Your task to perform on an android device: When is my next appointment? Image 0: 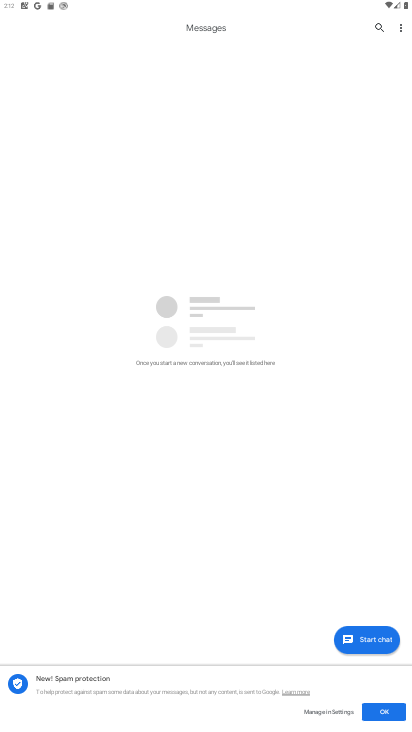
Step 0: press home button
Your task to perform on an android device: When is my next appointment? Image 1: 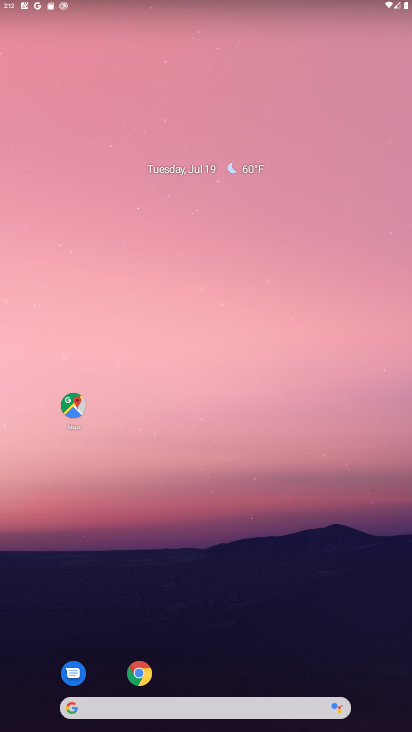
Step 1: drag from (217, 726) to (297, 168)
Your task to perform on an android device: When is my next appointment? Image 2: 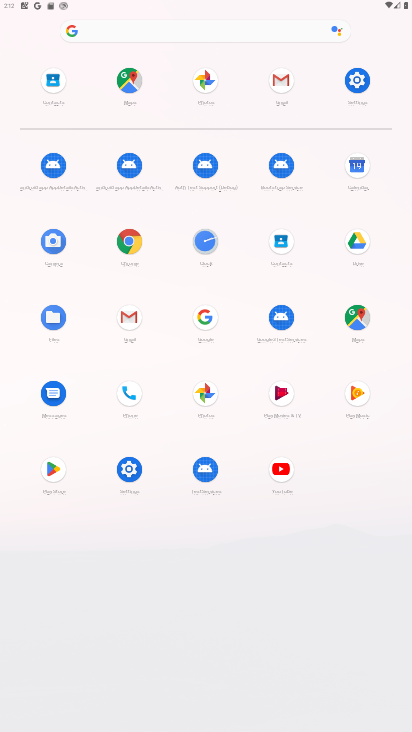
Step 2: click (361, 159)
Your task to perform on an android device: When is my next appointment? Image 3: 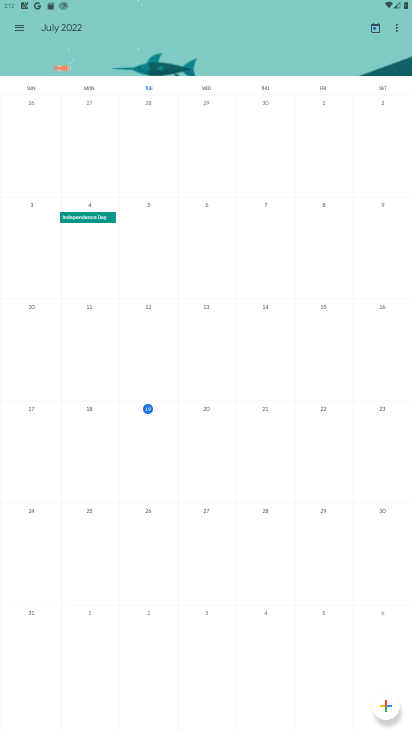
Step 3: click (20, 22)
Your task to perform on an android device: When is my next appointment? Image 4: 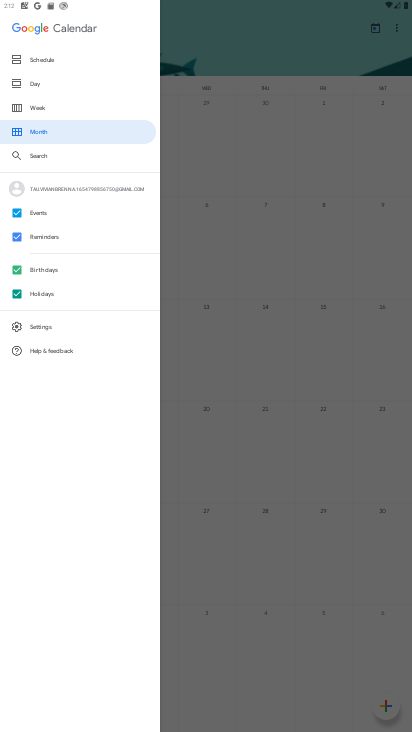
Step 4: click (45, 55)
Your task to perform on an android device: When is my next appointment? Image 5: 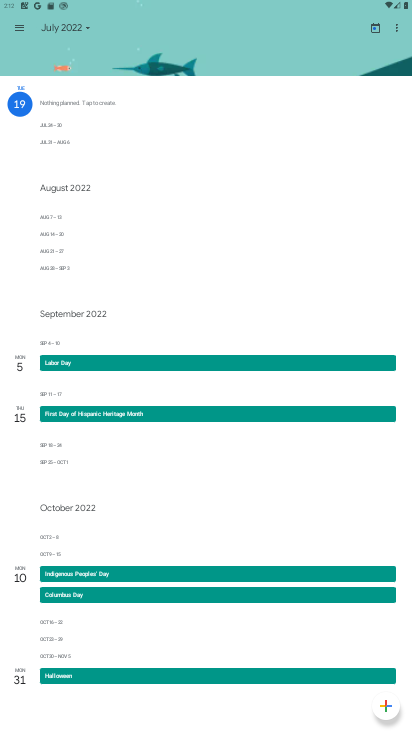
Step 5: task complete